Your task to perform on an android device: turn off location history Image 0: 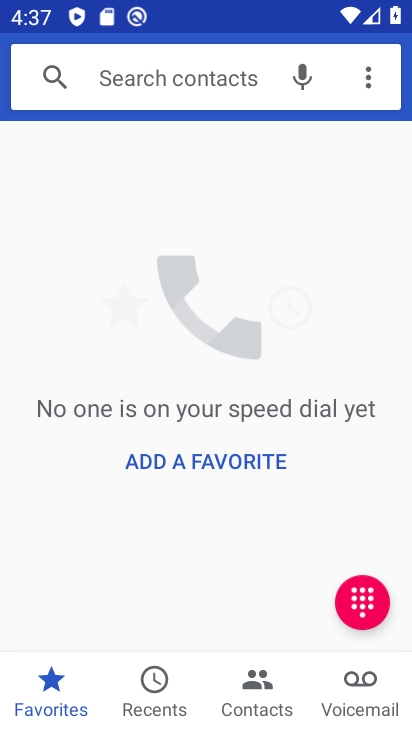
Step 0: press home button
Your task to perform on an android device: turn off location history Image 1: 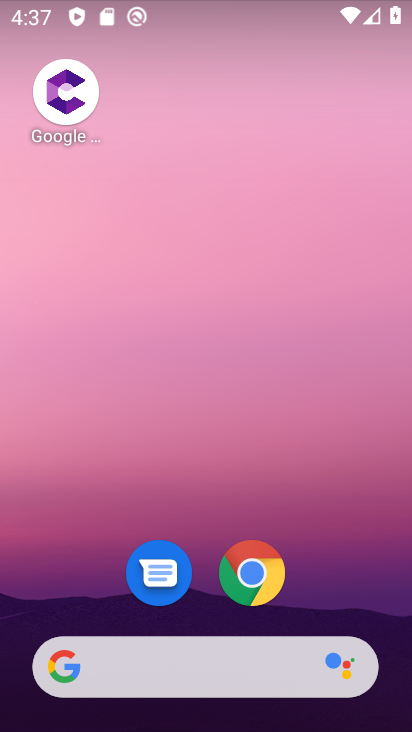
Step 1: drag from (184, 658) to (201, 226)
Your task to perform on an android device: turn off location history Image 2: 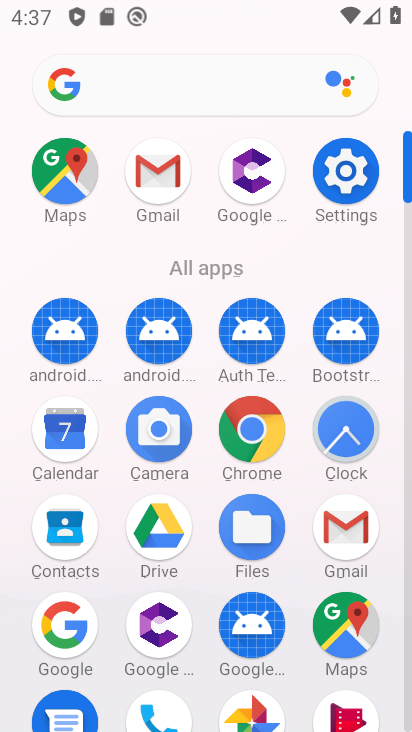
Step 2: click (345, 177)
Your task to perform on an android device: turn off location history Image 3: 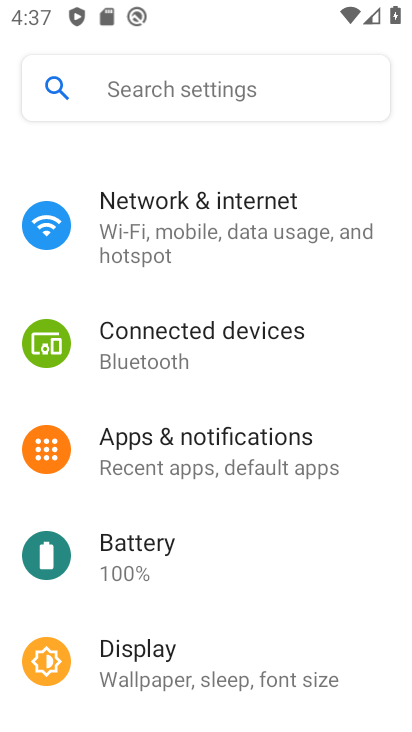
Step 3: drag from (125, 660) to (134, 191)
Your task to perform on an android device: turn off location history Image 4: 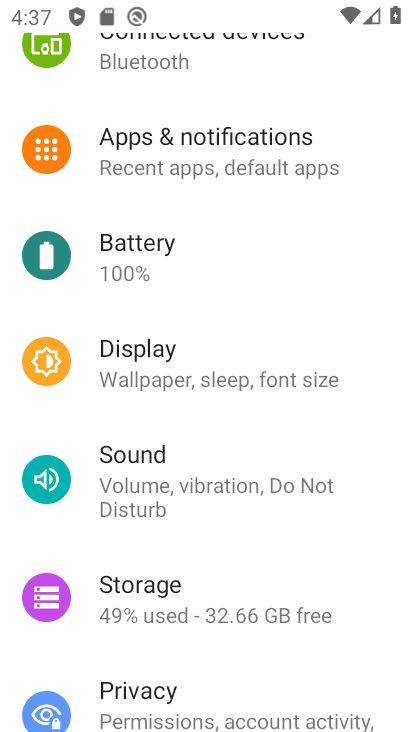
Step 4: drag from (172, 701) to (175, 275)
Your task to perform on an android device: turn off location history Image 5: 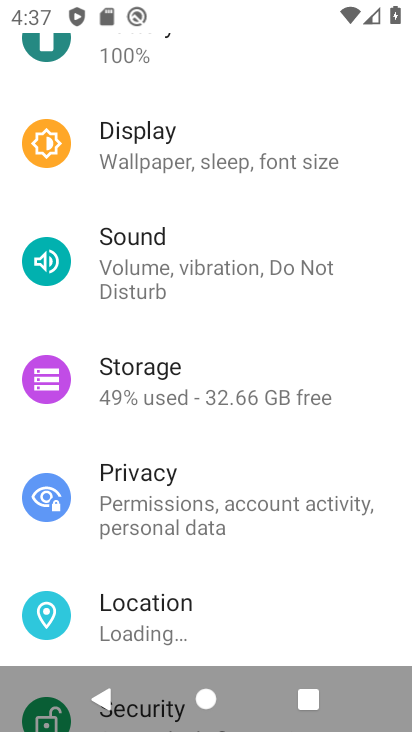
Step 5: click (164, 606)
Your task to perform on an android device: turn off location history Image 6: 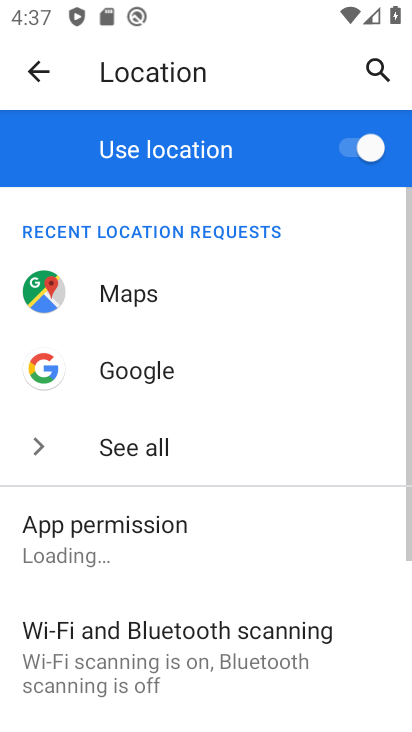
Step 6: drag from (134, 698) to (173, 254)
Your task to perform on an android device: turn off location history Image 7: 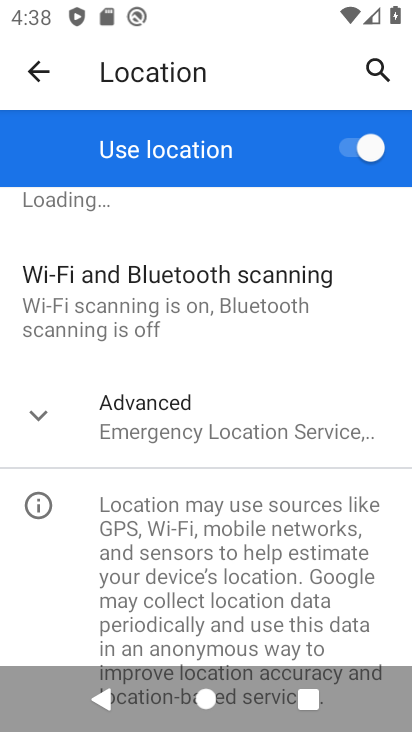
Step 7: click (172, 424)
Your task to perform on an android device: turn off location history Image 8: 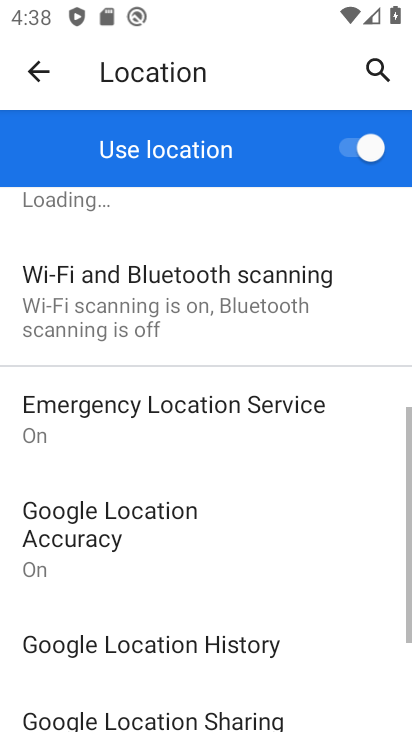
Step 8: drag from (181, 659) to (216, 282)
Your task to perform on an android device: turn off location history Image 9: 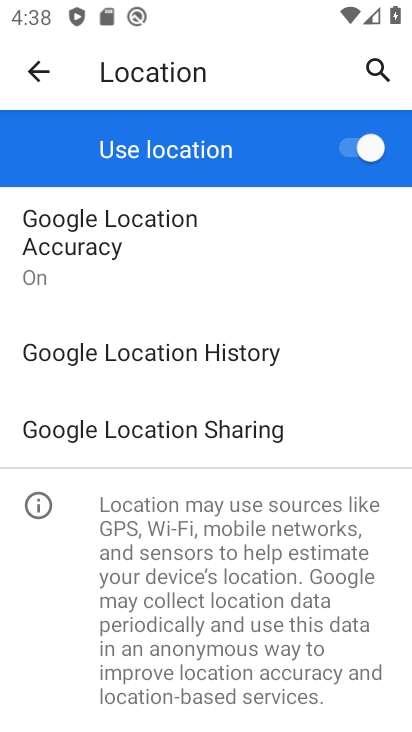
Step 9: click (203, 347)
Your task to perform on an android device: turn off location history Image 10: 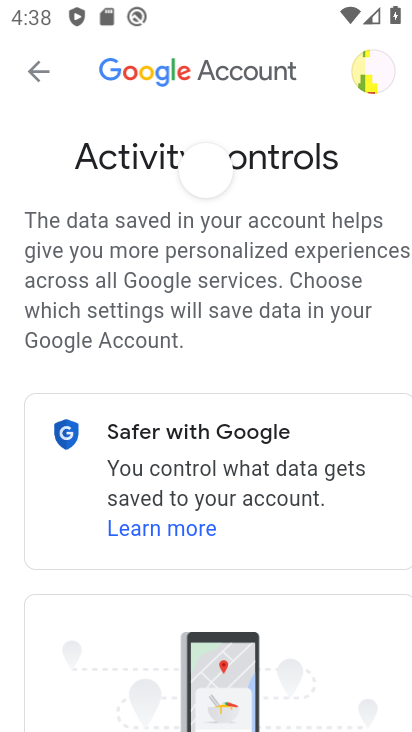
Step 10: drag from (337, 677) to (313, 242)
Your task to perform on an android device: turn off location history Image 11: 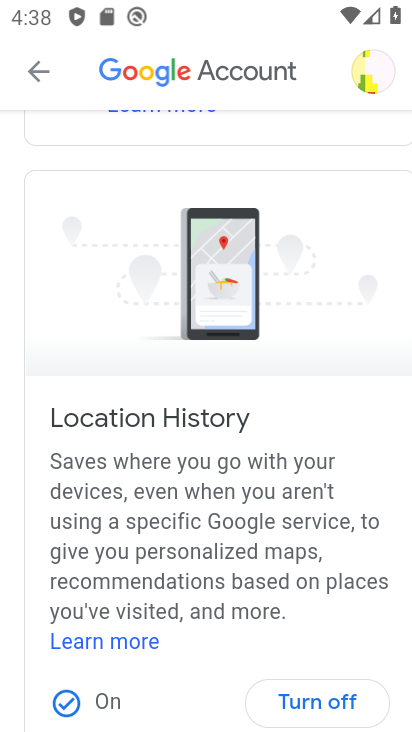
Step 11: click (295, 704)
Your task to perform on an android device: turn off location history Image 12: 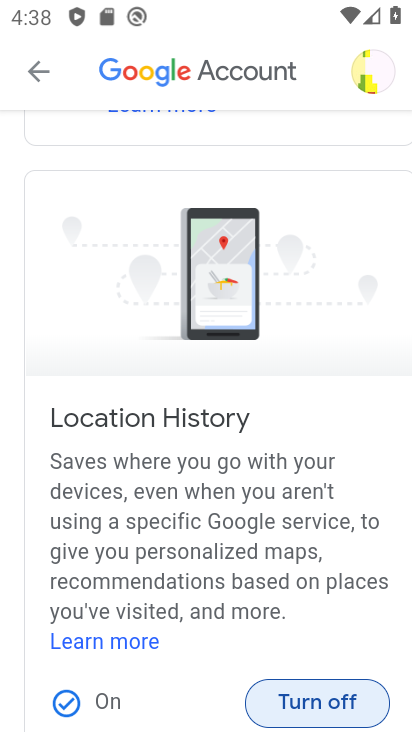
Step 12: click (295, 704)
Your task to perform on an android device: turn off location history Image 13: 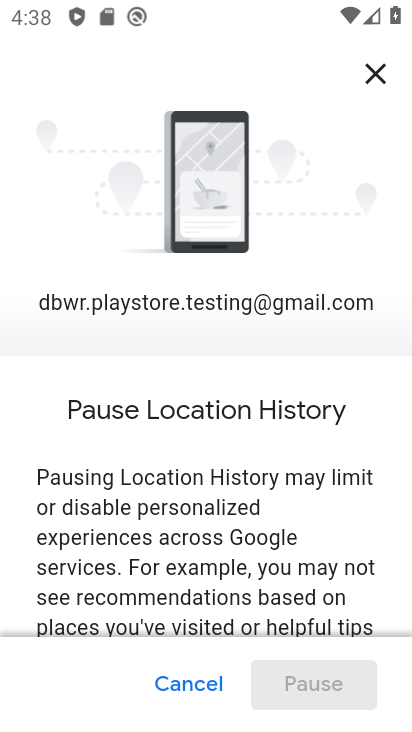
Step 13: drag from (287, 620) to (288, 238)
Your task to perform on an android device: turn off location history Image 14: 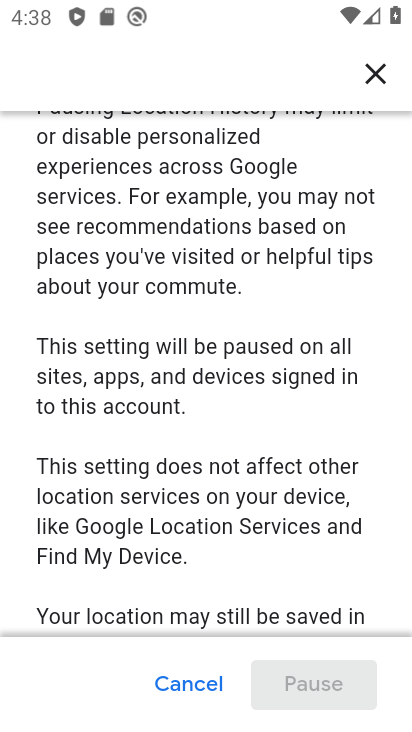
Step 14: drag from (259, 602) to (259, 89)
Your task to perform on an android device: turn off location history Image 15: 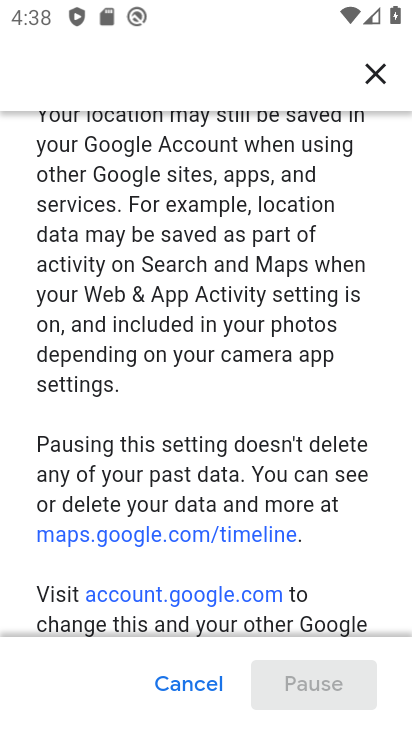
Step 15: drag from (339, 555) to (339, 241)
Your task to perform on an android device: turn off location history Image 16: 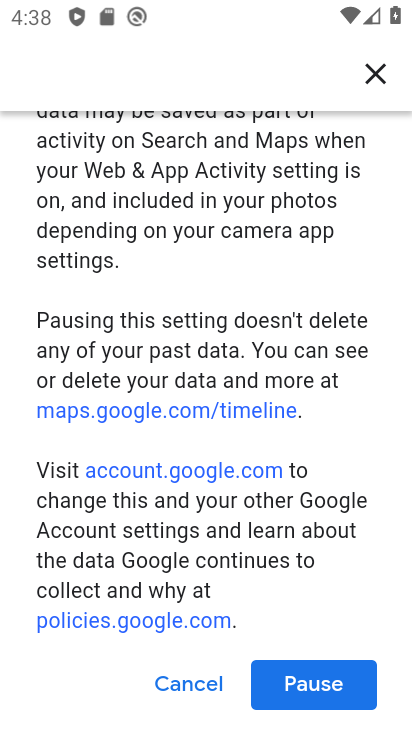
Step 16: click (330, 678)
Your task to perform on an android device: turn off location history Image 17: 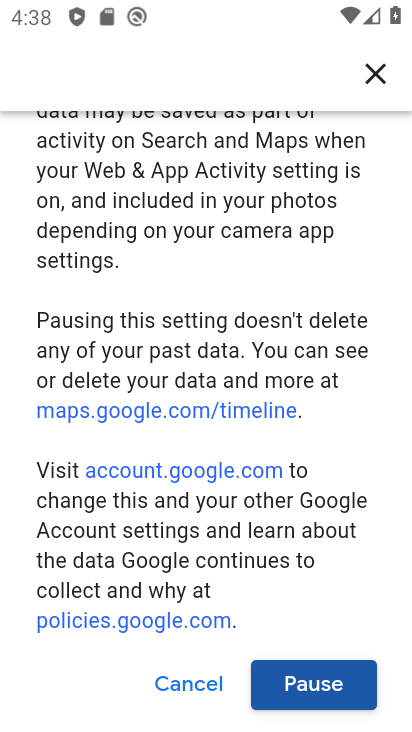
Step 17: click (295, 695)
Your task to perform on an android device: turn off location history Image 18: 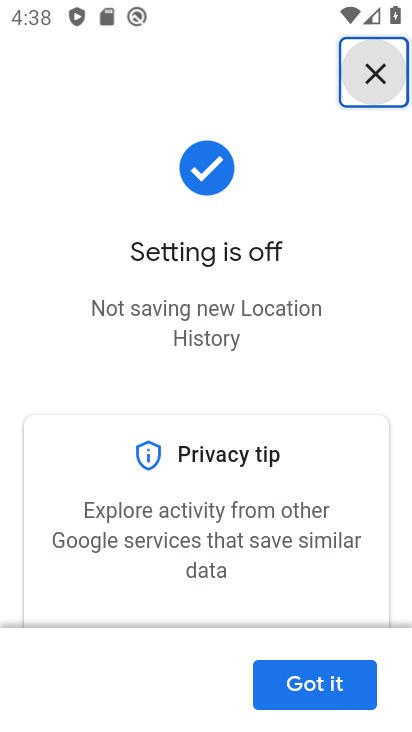
Step 18: click (277, 701)
Your task to perform on an android device: turn off location history Image 19: 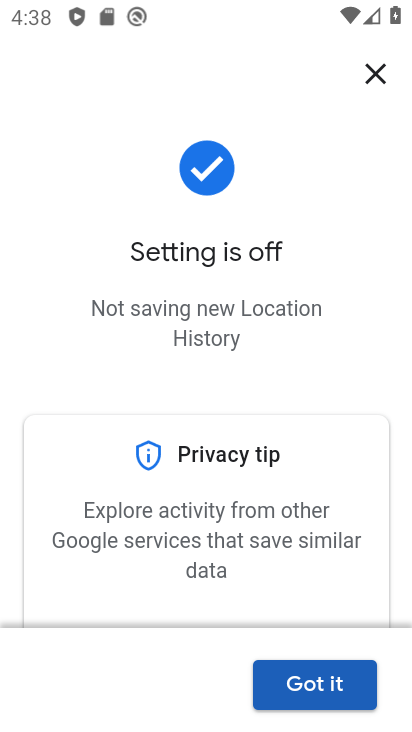
Step 19: click (341, 691)
Your task to perform on an android device: turn off location history Image 20: 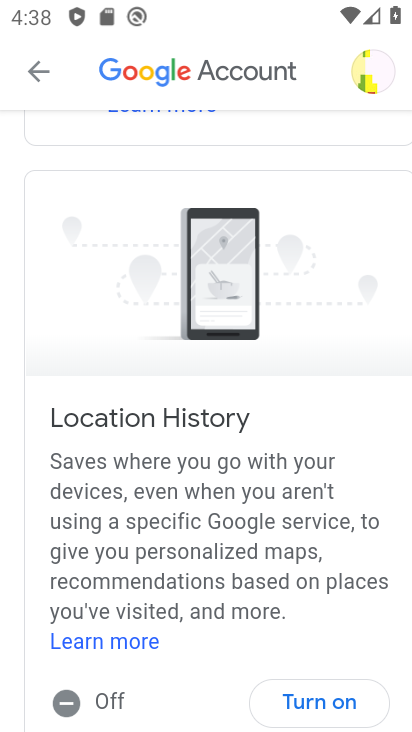
Step 20: task complete